Your task to perform on an android device: uninstall "PUBG MOBILE" Image 0: 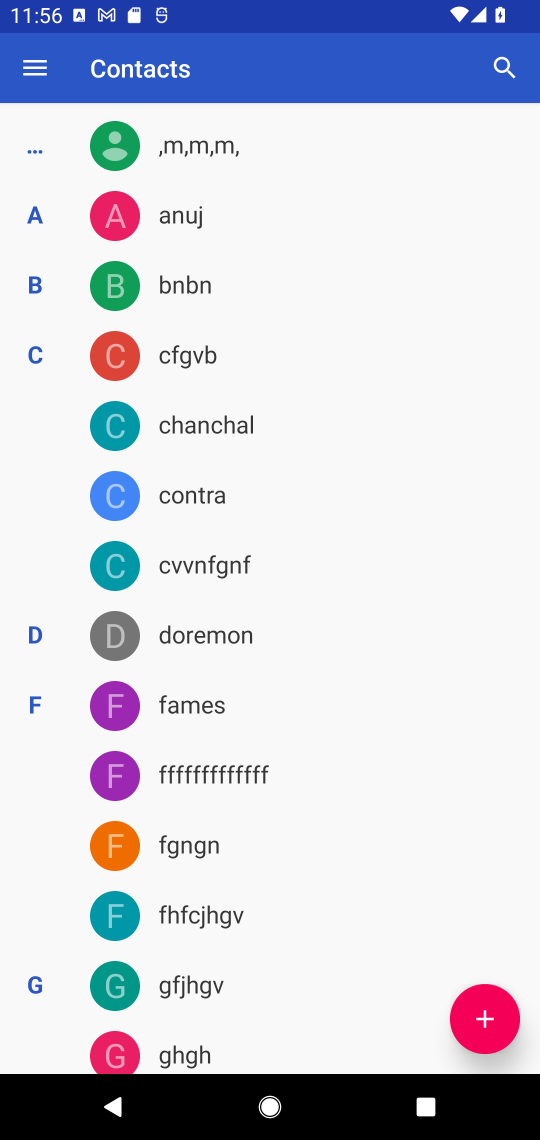
Step 0: press home button
Your task to perform on an android device: uninstall "PUBG MOBILE" Image 1: 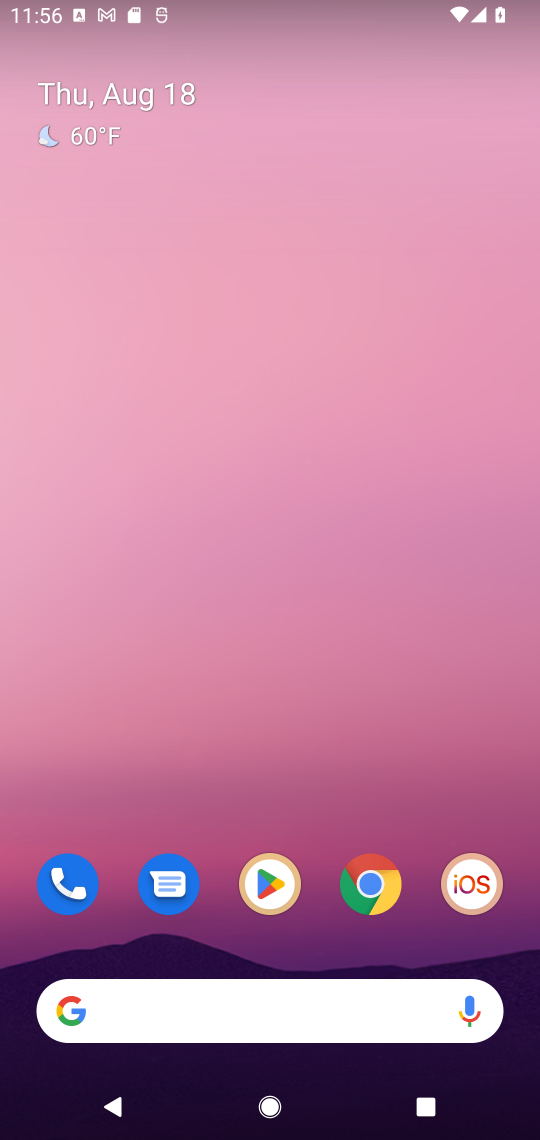
Step 1: drag from (173, 1005) to (337, 99)
Your task to perform on an android device: uninstall "PUBG MOBILE" Image 2: 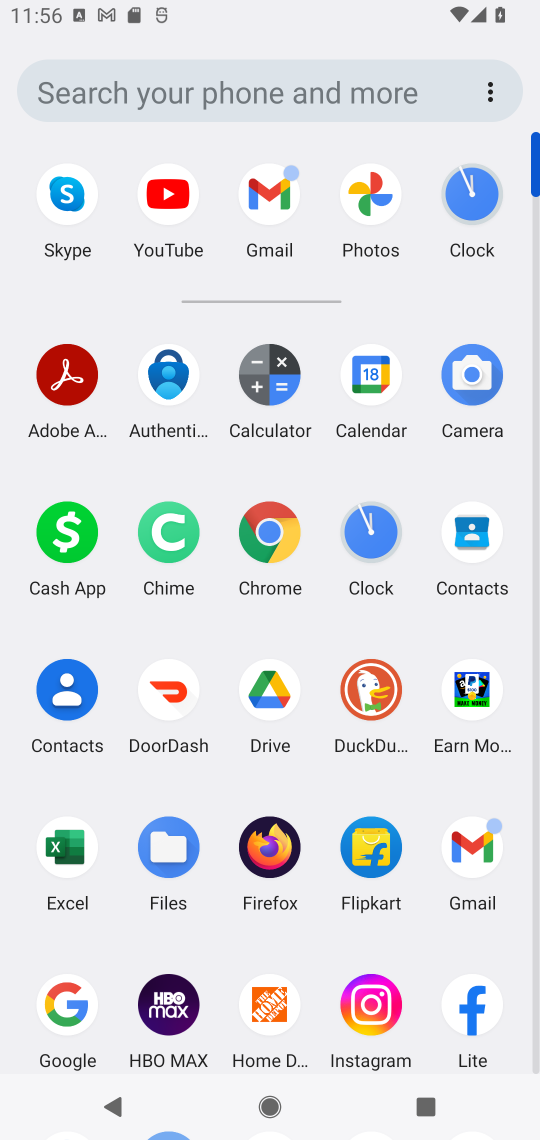
Step 2: drag from (197, 945) to (282, 427)
Your task to perform on an android device: uninstall "PUBG MOBILE" Image 3: 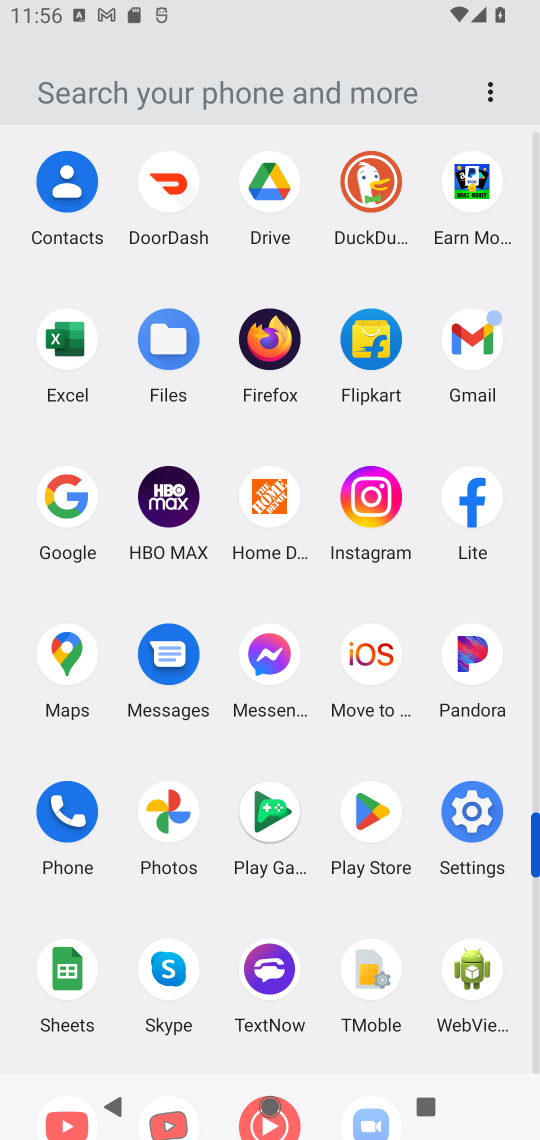
Step 3: click (368, 816)
Your task to perform on an android device: uninstall "PUBG MOBILE" Image 4: 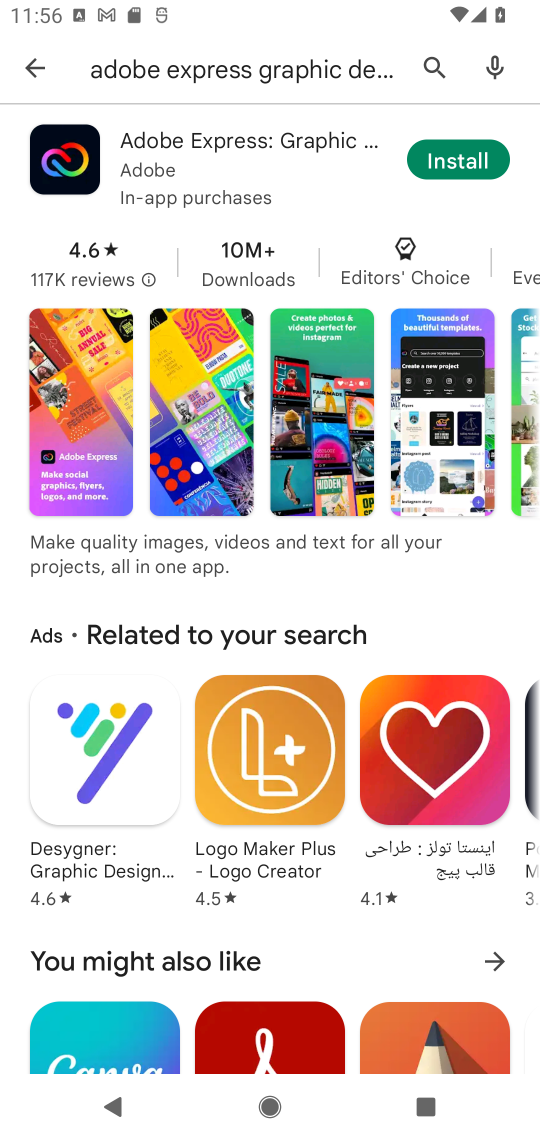
Step 4: press back button
Your task to perform on an android device: uninstall "PUBG MOBILE" Image 5: 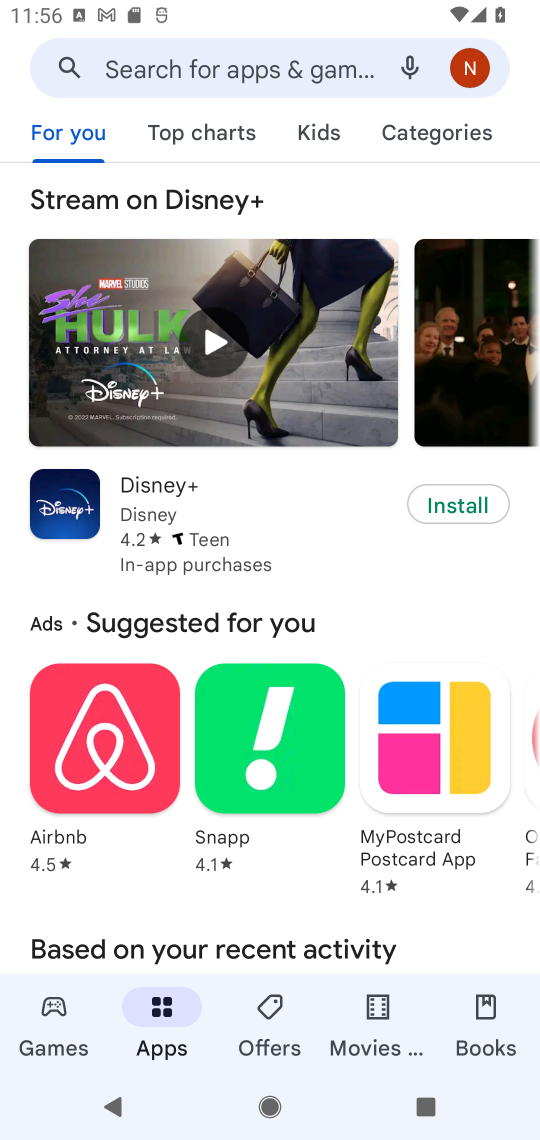
Step 5: click (315, 62)
Your task to perform on an android device: uninstall "PUBG MOBILE" Image 6: 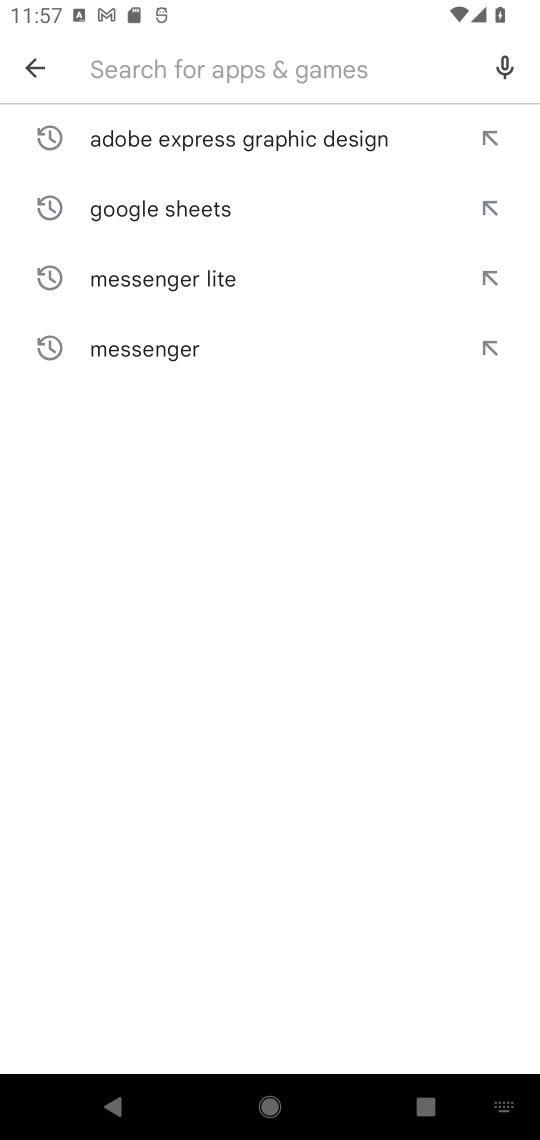
Step 6: type "PUBG MOBILE"
Your task to perform on an android device: uninstall "PUBG MOBILE" Image 7: 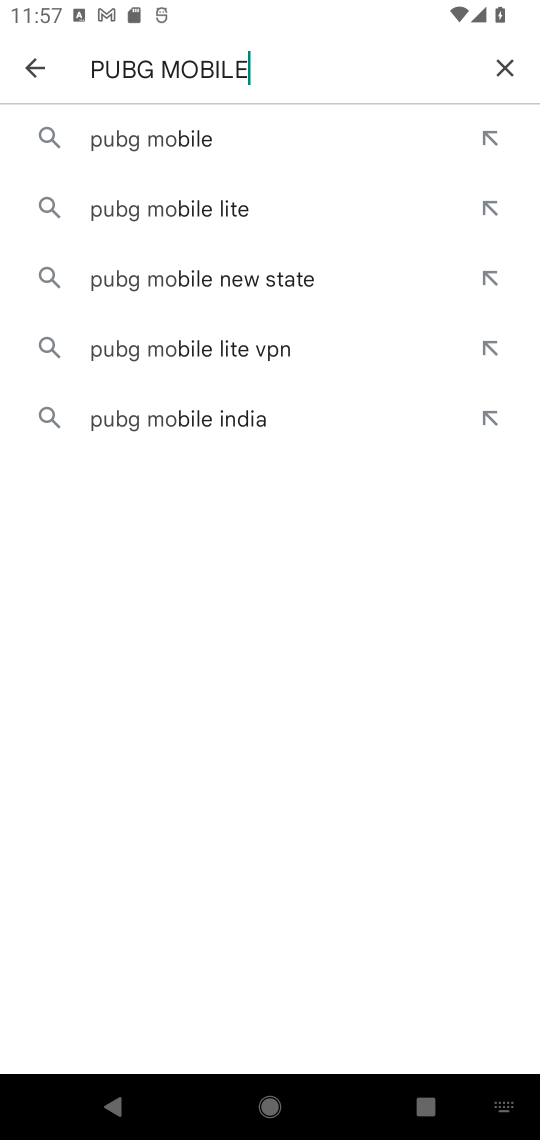
Step 7: type ""
Your task to perform on an android device: uninstall "PUBG MOBILE" Image 8: 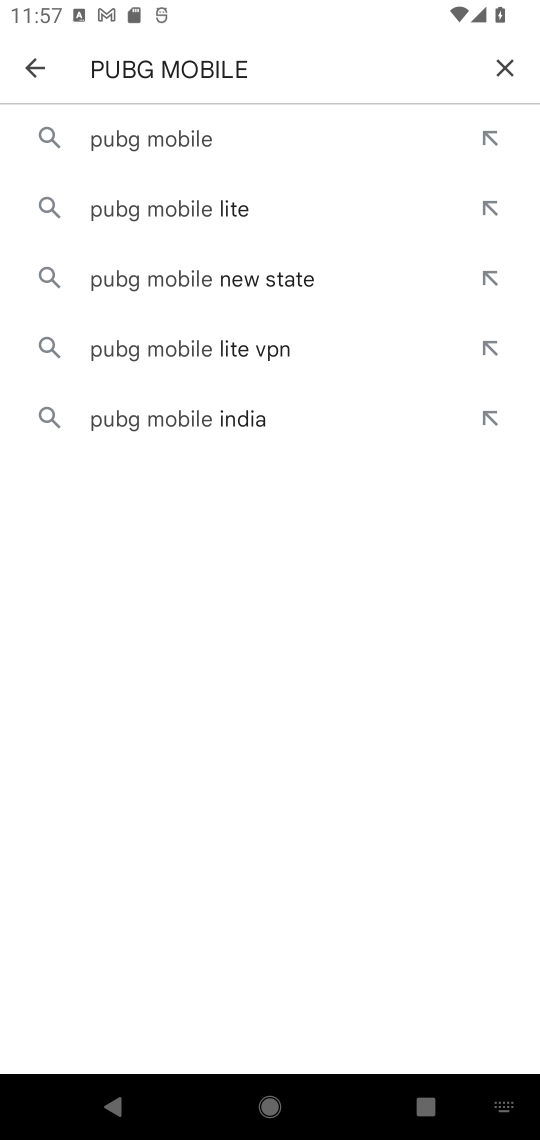
Step 8: click (212, 147)
Your task to perform on an android device: uninstall "PUBG MOBILE" Image 9: 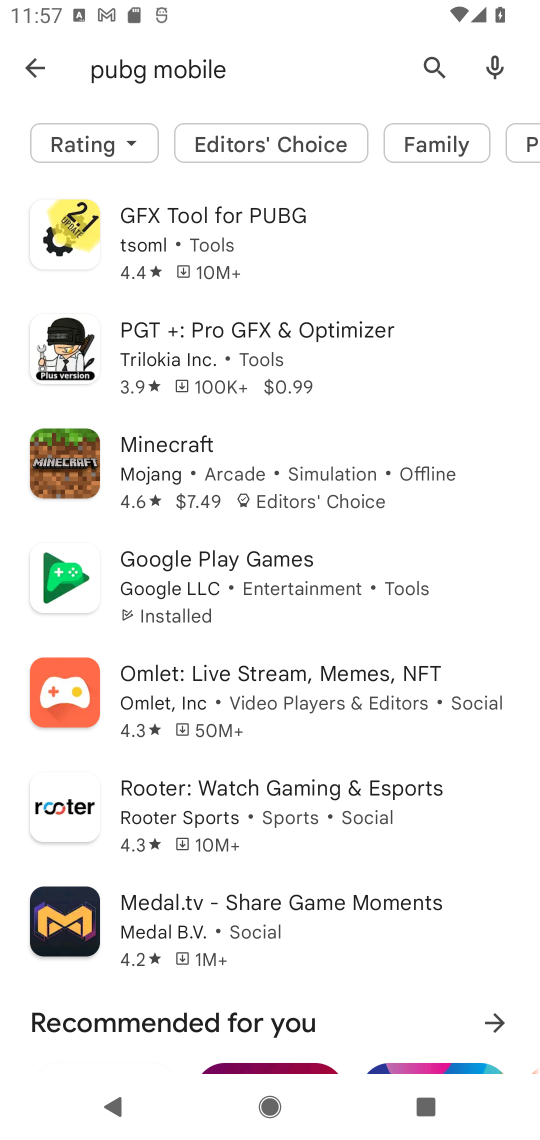
Step 9: drag from (237, 629) to (287, 494)
Your task to perform on an android device: uninstall "PUBG MOBILE" Image 10: 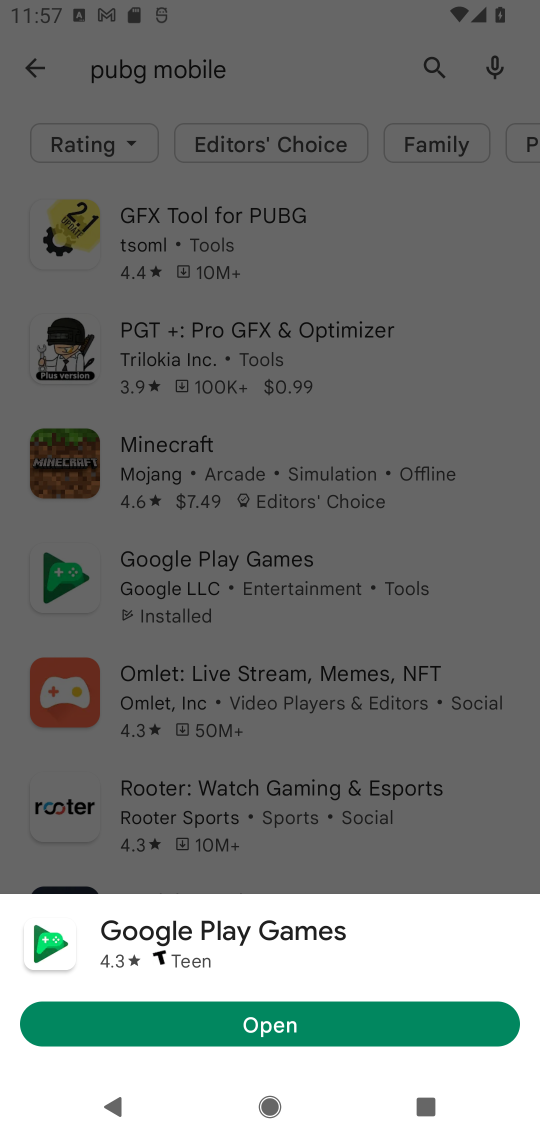
Step 10: click (473, 312)
Your task to perform on an android device: uninstall "PUBG MOBILE" Image 11: 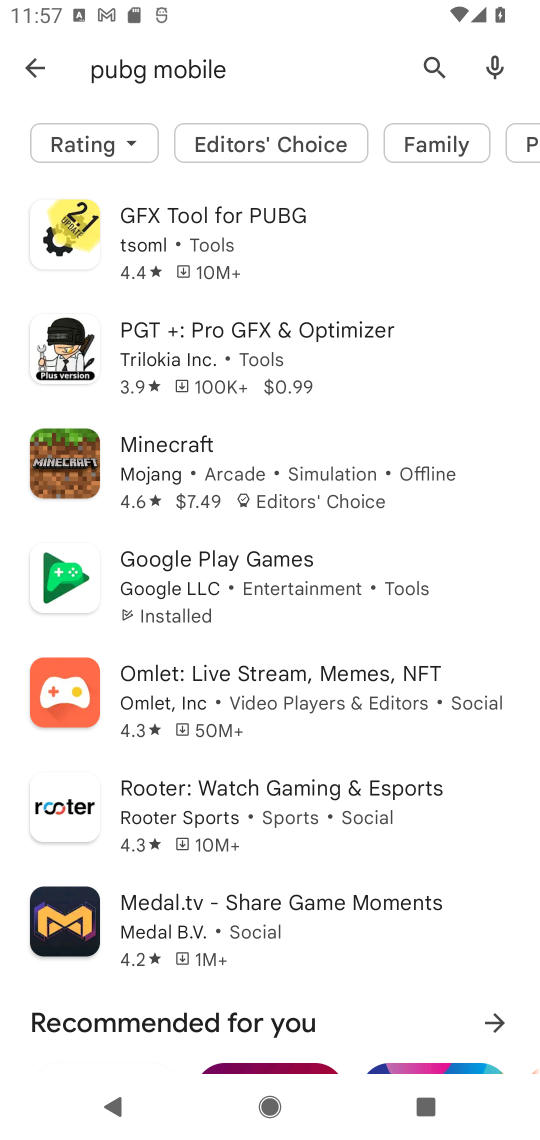
Step 11: task complete